Your task to perform on an android device: toggle notifications settings in the gmail app Image 0: 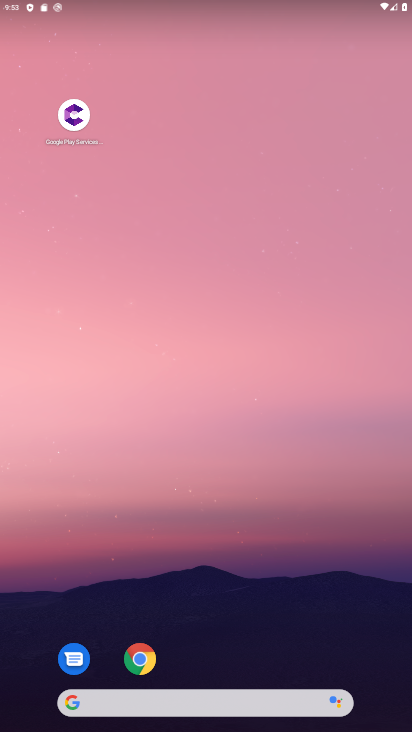
Step 0: drag from (367, 608) to (264, 4)
Your task to perform on an android device: toggle notifications settings in the gmail app Image 1: 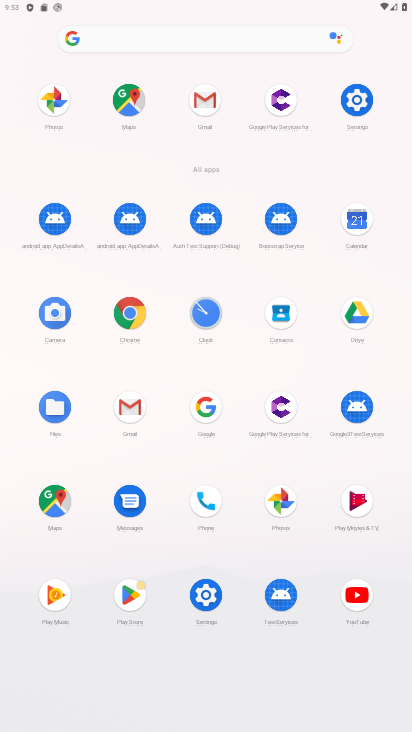
Step 1: click (202, 110)
Your task to perform on an android device: toggle notifications settings in the gmail app Image 2: 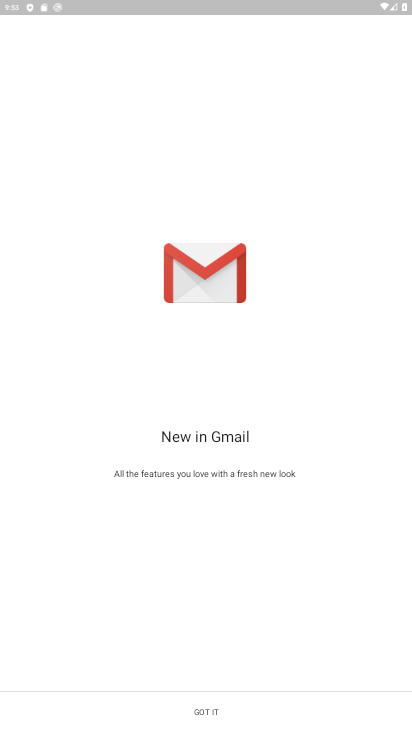
Step 2: click (206, 715)
Your task to perform on an android device: toggle notifications settings in the gmail app Image 3: 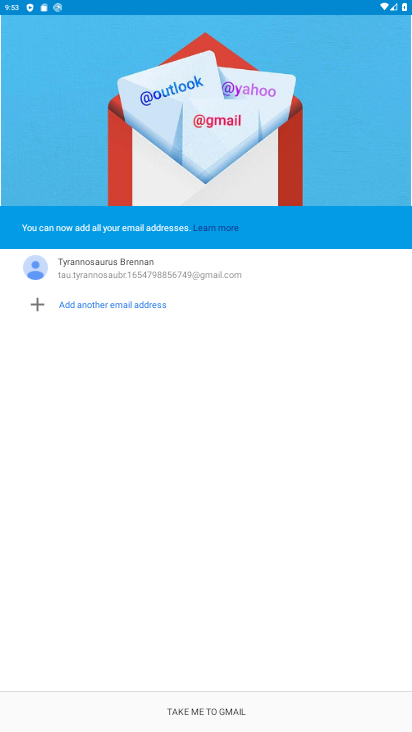
Step 3: click (116, 707)
Your task to perform on an android device: toggle notifications settings in the gmail app Image 4: 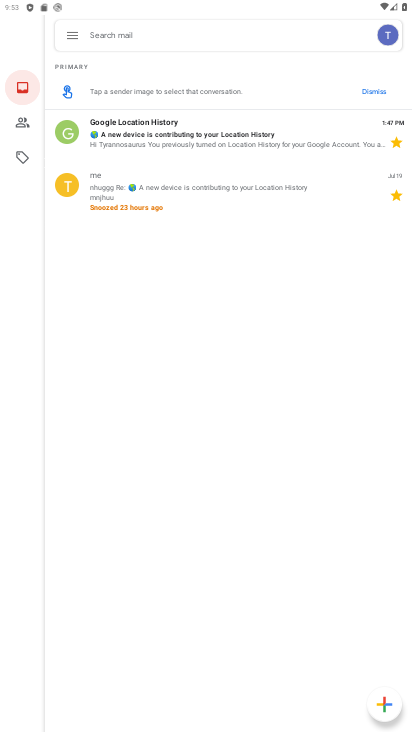
Step 4: click (68, 31)
Your task to perform on an android device: toggle notifications settings in the gmail app Image 5: 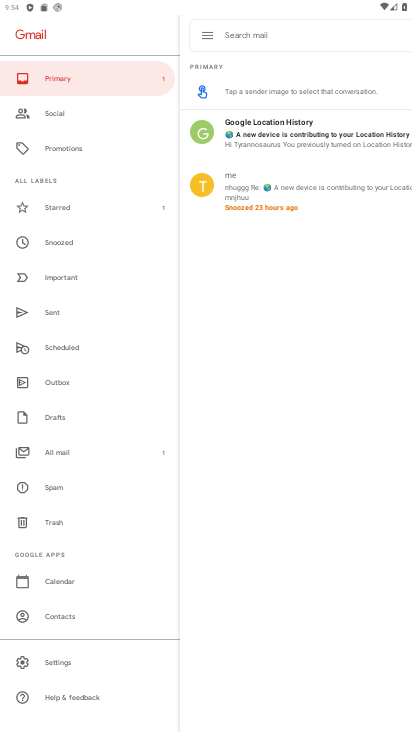
Step 5: click (53, 664)
Your task to perform on an android device: toggle notifications settings in the gmail app Image 6: 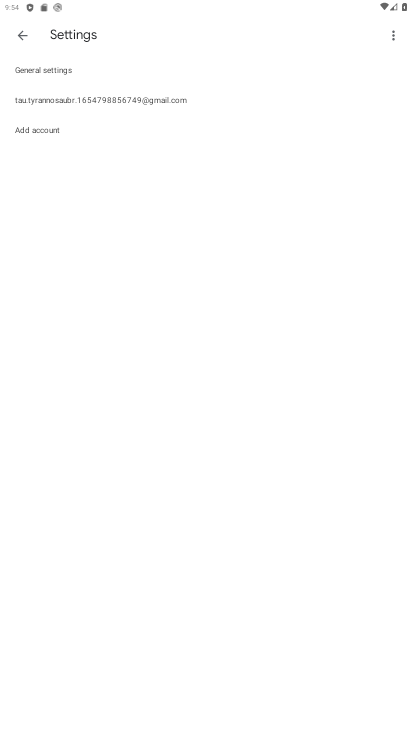
Step 6: click (78, 99)
Your task to perform on an android device: toggle notifications settings in the gmail app Image 7: 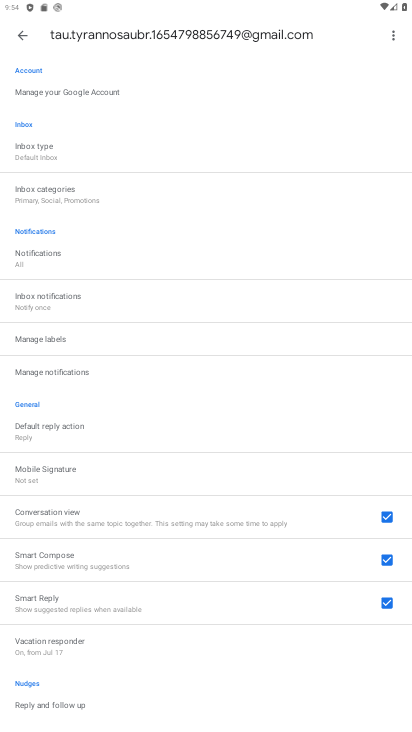
Step 7: click (66, 372)
Your task to perform on an android device: toggle notifications settings in the gmail app Image 8: 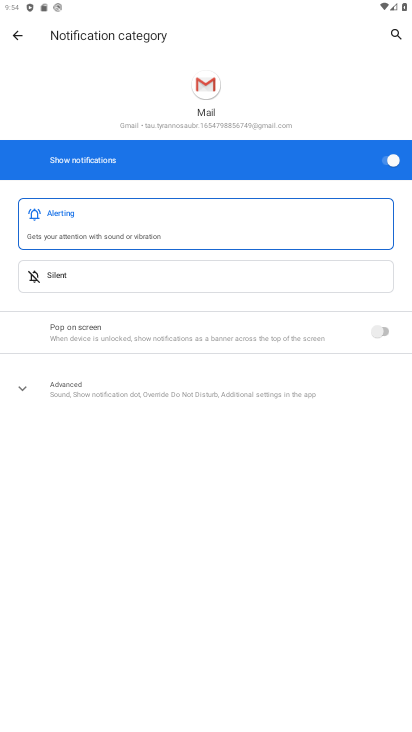
Step 8: click (390, 141)
Your task to perform on an android device: toggle notifications settings in the gmail app Image 9: 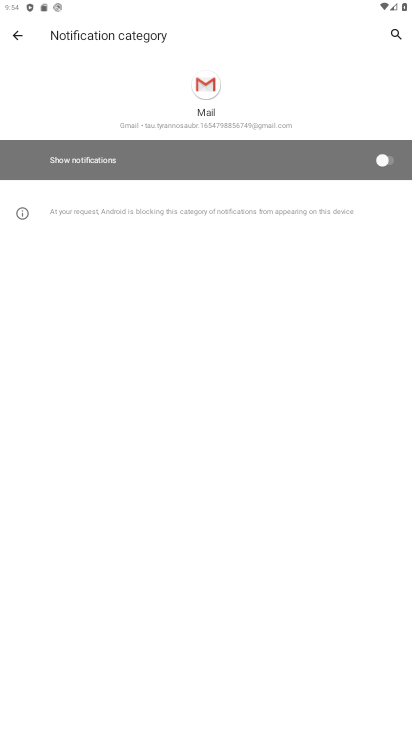
Step 9: task complete